Your task to perform on an android device: turn smart compose on in the gmail app Image 0: 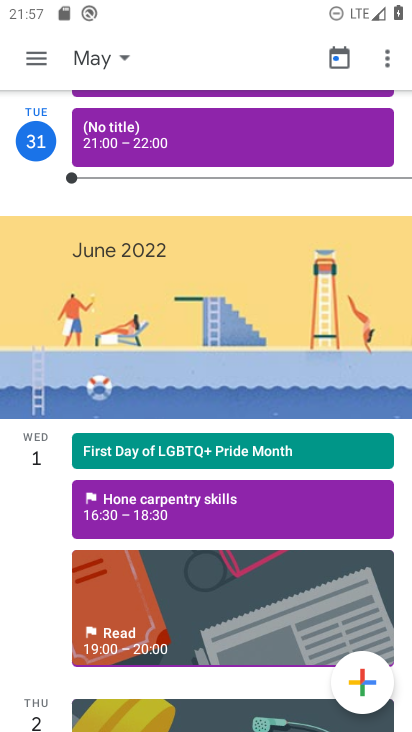
Step 0: press back button
Your task to perform on an android device: turn smart compose on in the gmail app Image 1: 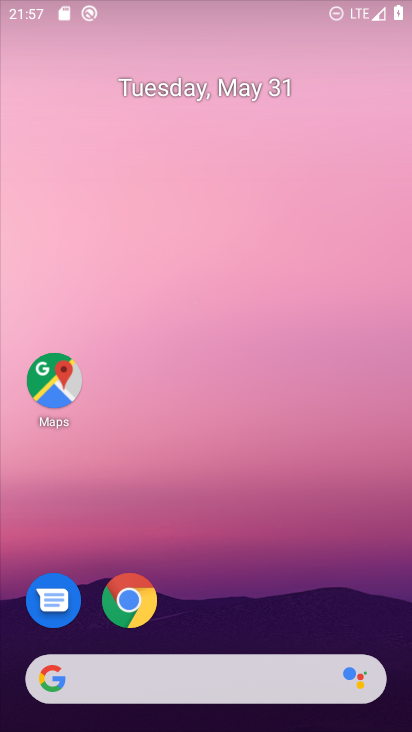
Step 1: drag from (231, 575) to (229, 107)
Your task to perform on an android device: turn smart compose on in the gmail app Image 2: 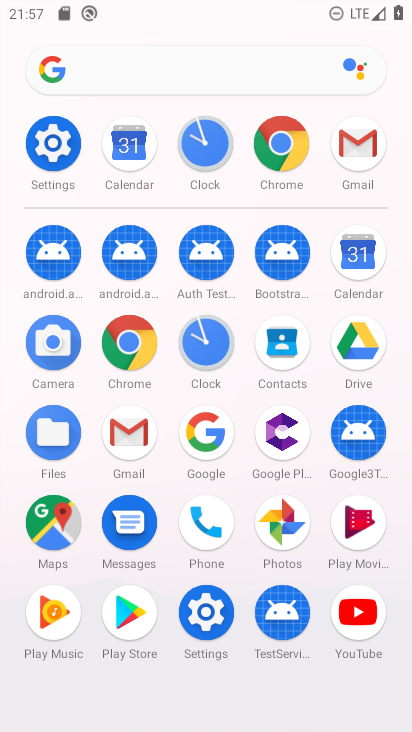
Step 2: click (350, 143)
Your task to perform on an android device: turn smart compose on in the gmail app Image 3: 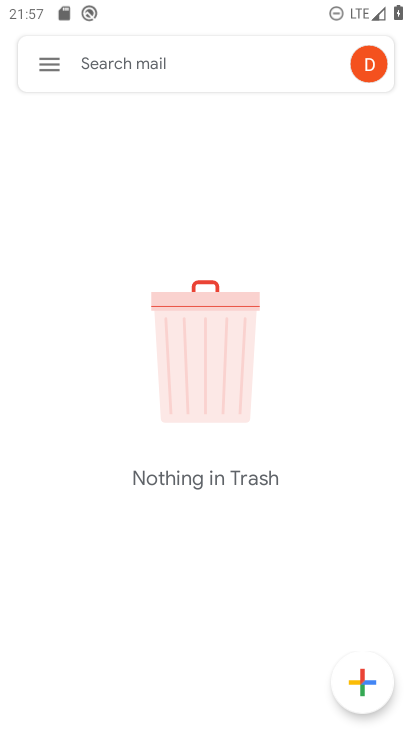
Step 3: click (45, 67)
Your task to perform on an android device: turn smart compose on in the gmail app Image 4: 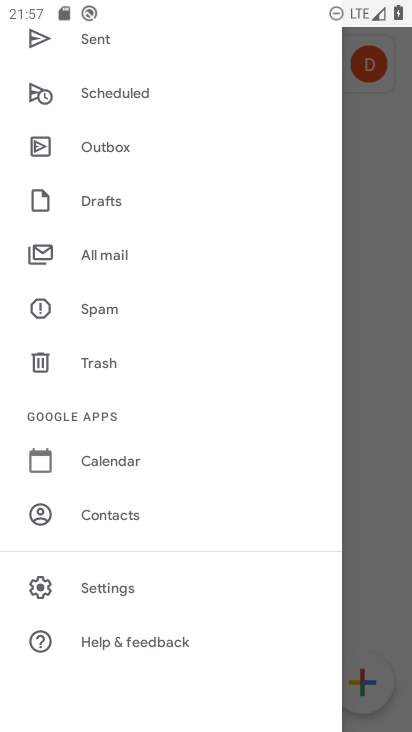
Step 4: click (113, 587)
Your task to perform on an android device: turn smart compose on in the gmail app Image 5: 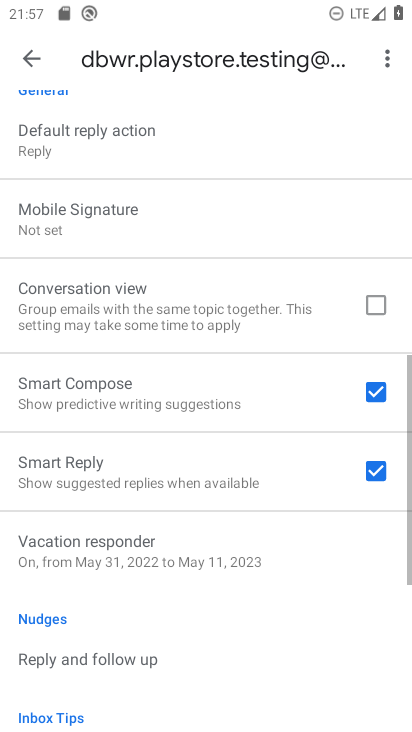
Step 5: task complete